Your task to perform on an android device: turn pop-ups on in chrome Image 0: 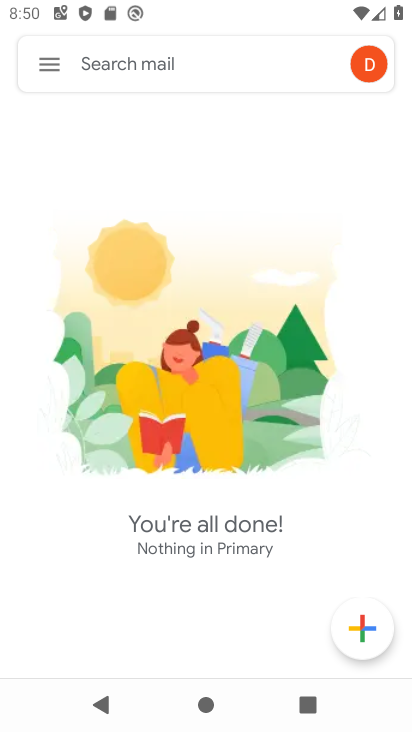
Step 0: press home button
Your task to perform on an android device: turn pop-ups on in chrome Image 1: 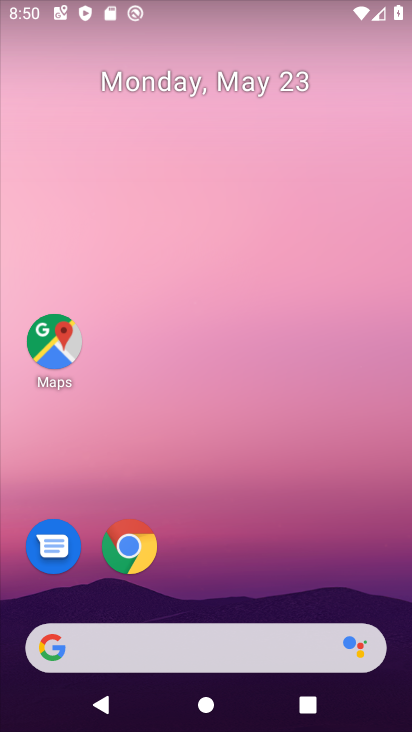
Step 1: click (131, 550)
Your task to perform on an android device: turn pop-ups on in chrome Image 2: 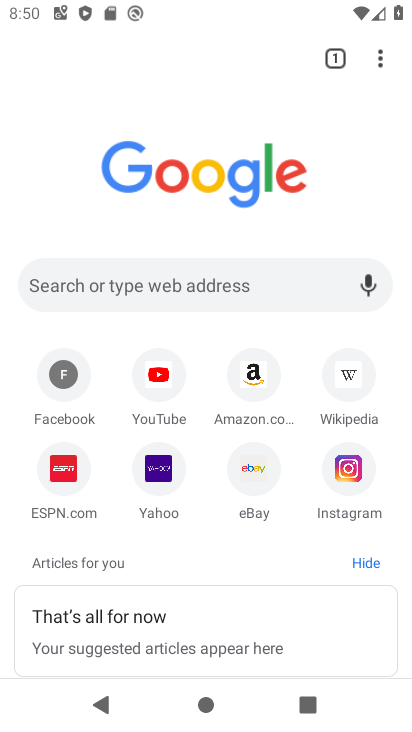
Step 2: click (381, 62)
Your task to perform on an android device: turn pop-ups on in chrome Image 3: 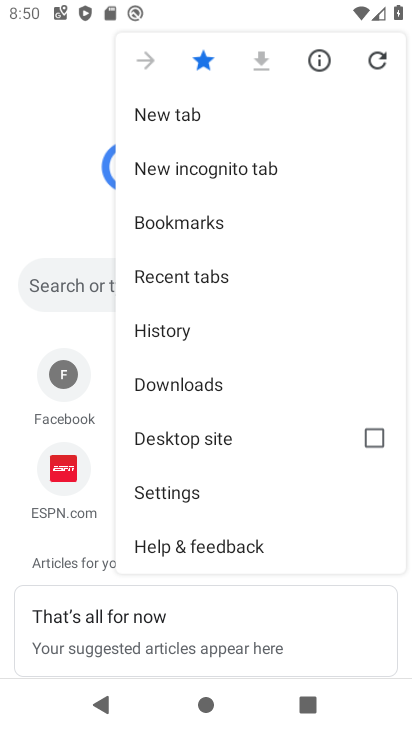
Step 3: click (150, 483)
Your task to perform on an android device: turn pop-ups on in chrome Image 4: 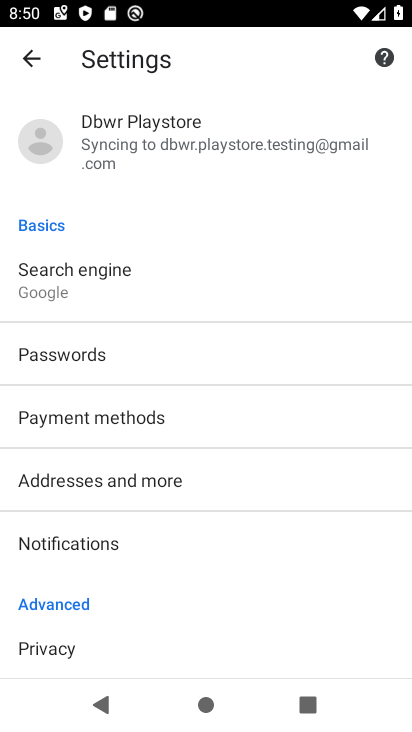
Step 4: drag from (216, 641) to (196, 197)
Your task to perform on an android device: turn pop-ups on in chrome Image 5: 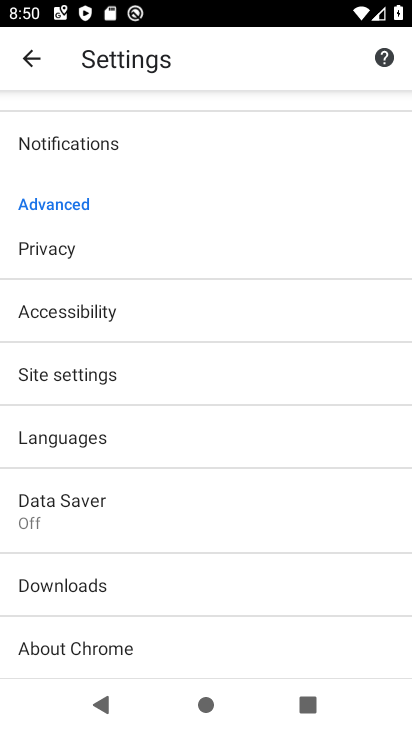
Step 5: click (56, 370)
Your task to perform on an android device: turn pop-ups on in chrome Image 6: 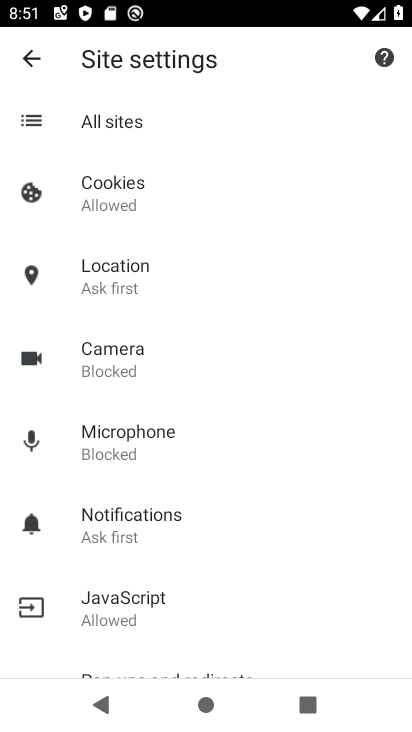
Step 6: drag from (197, 571) to (229, 148)
Your task to perform on an android device: turn pop-ups on in chrome Image 7: 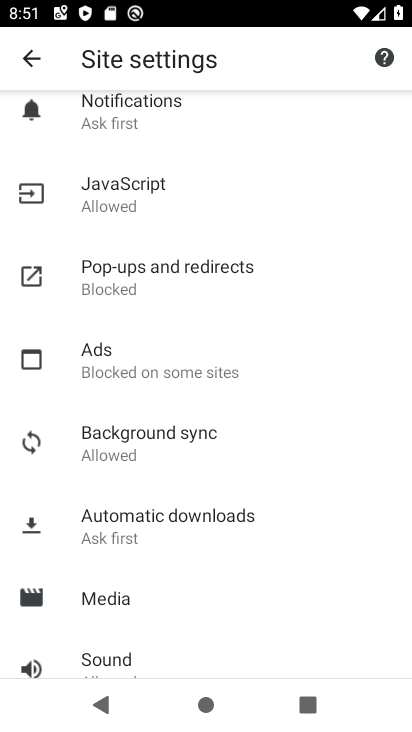
Step 7: click (102, 261)
Your task to perform on an android device: turn pop-ups on in chrome Image 8: 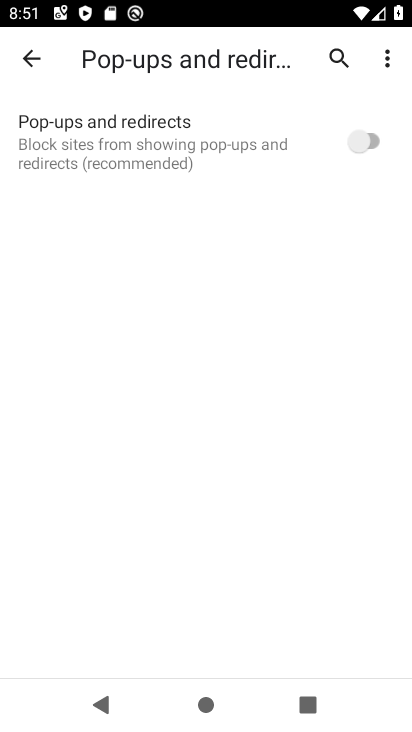
Step 8: click (375, 140)
Your task to perform on an android device: turn pop-ups on in chrome Image 9: 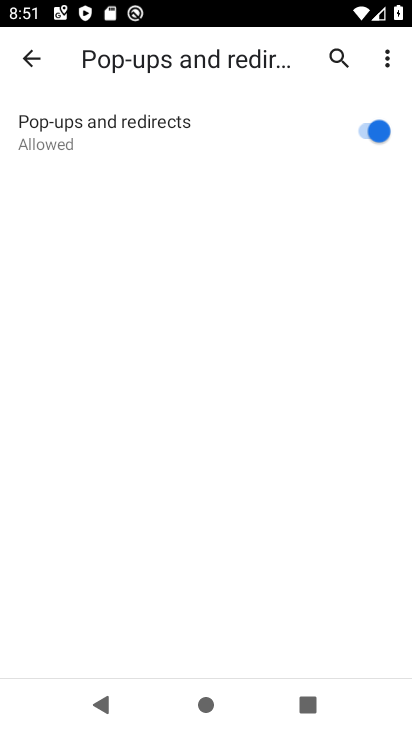
Step 9: task complete